Your task to perform on an android device: Go to ESPN.com Image 0: 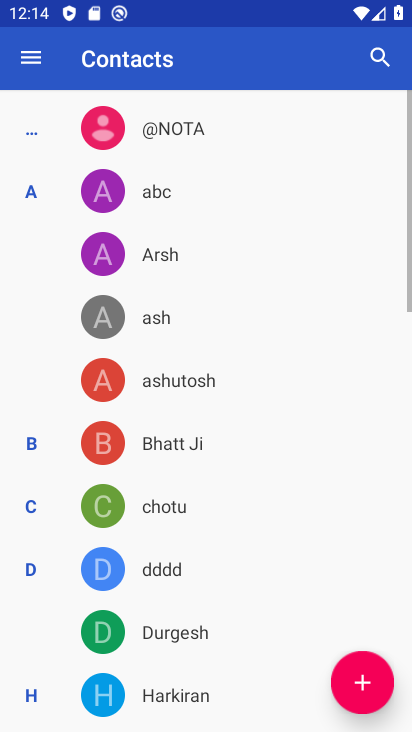
Step 0: press home button
Your task to perform on an android device: Go to ESPN.com Image 1: 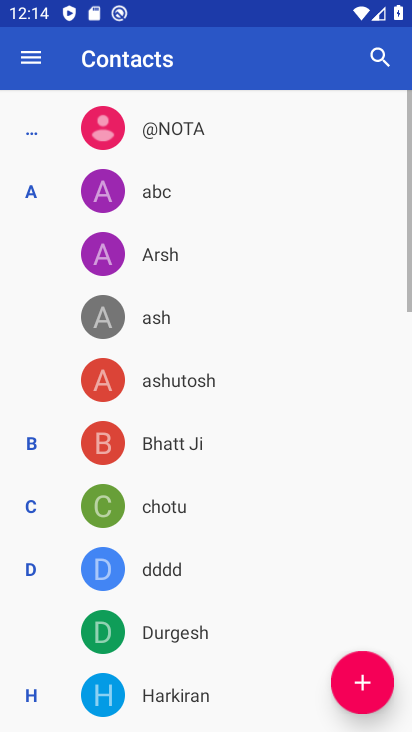
Step 1: press home button
Your task to perform on an android device: Go to ESPN.com Image 2: 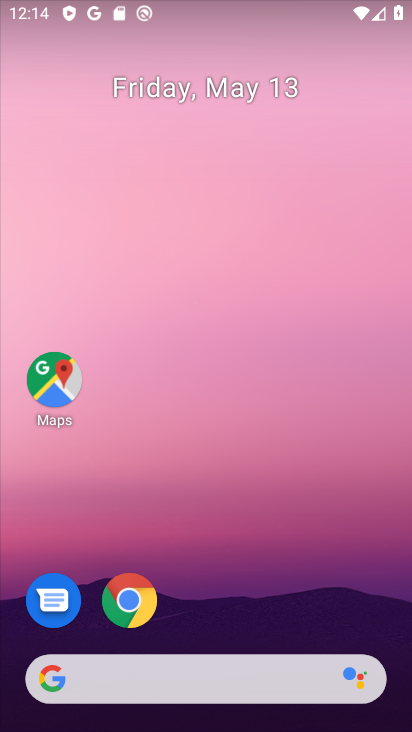
Step 2: drag from (182, 572) to (222, 247)
Your task to perform on an android device: Go to ESPN.com Image 3: 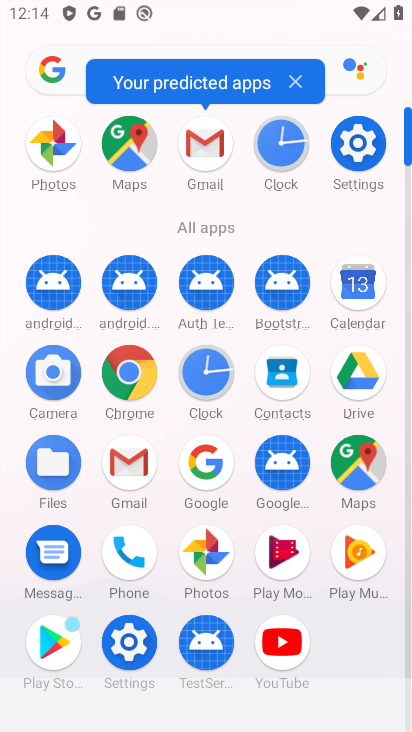
Step 3: click (304, 91)
Your task to perform on an android device: Go to ESPN.com Image 4: 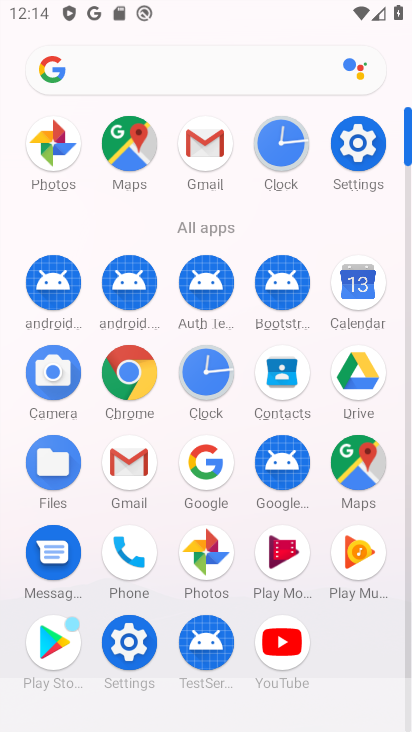
Step 4: click (185, 61)
Your task to perform on an android device: Go to ESPN.com Image 5: 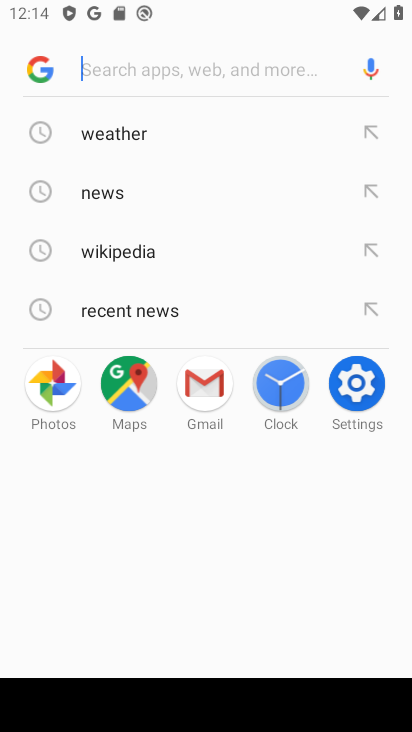
Step 5: type "espn"
Your task to perform on an android device: Go to ESPN.com Image 6: 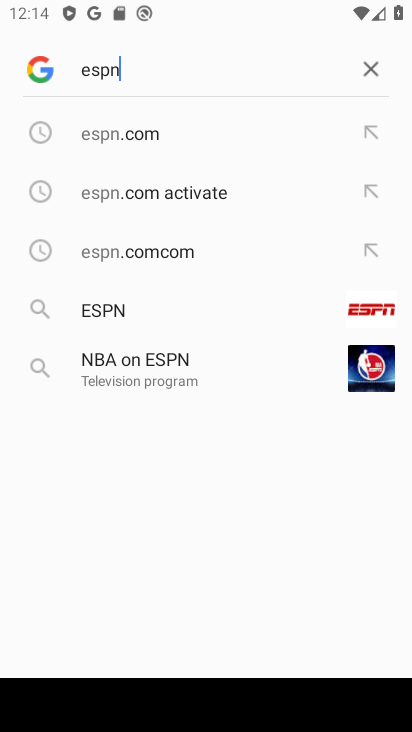
Step 6: click (150, 126)
Your task to perform on an android device: Go to ESPN.com Image 7: 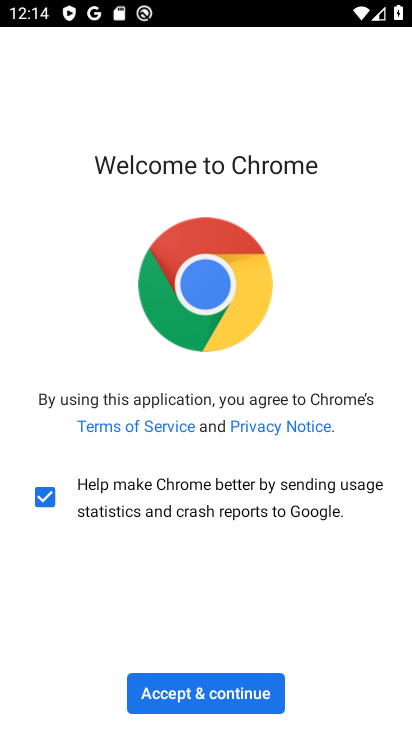
Step 7: click (227, 712)
Your task to perform on an android device: Go to ESPN.com Image 8: 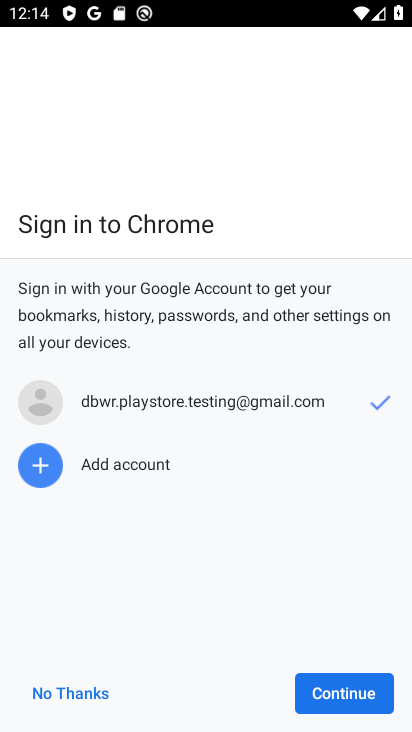
Step 8: click (313, 688)
Your task to perform on an android device: Go to ESPN.com Image 9: 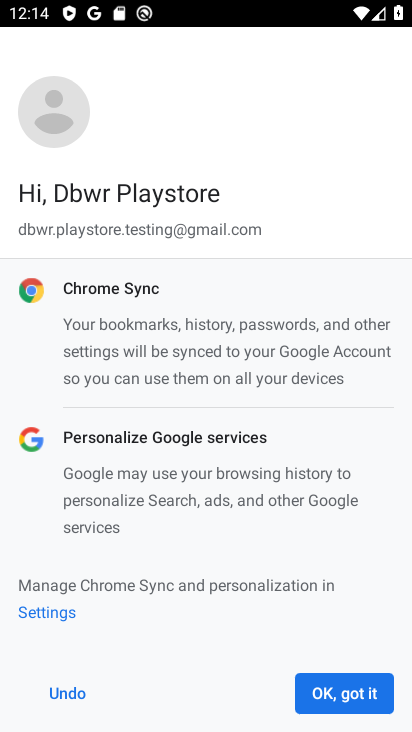
Step 9: click (347, 706)
Your task to perform on an android device: Go to ESPN.com Image 10: 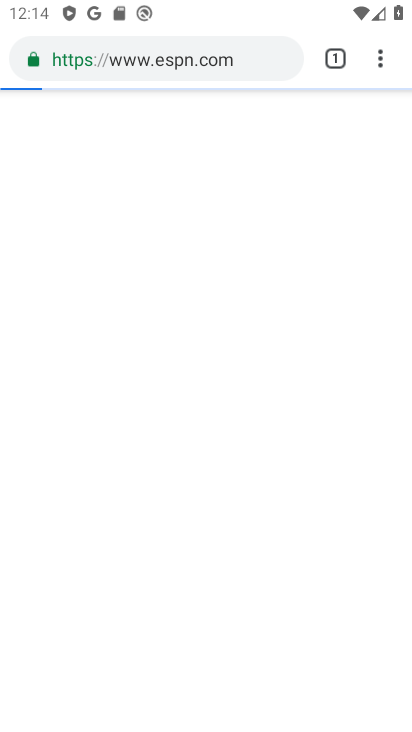
Step 10: task complete